Your task to perform on an android device: open the mobile data screen to see how much data has been used Image 0: 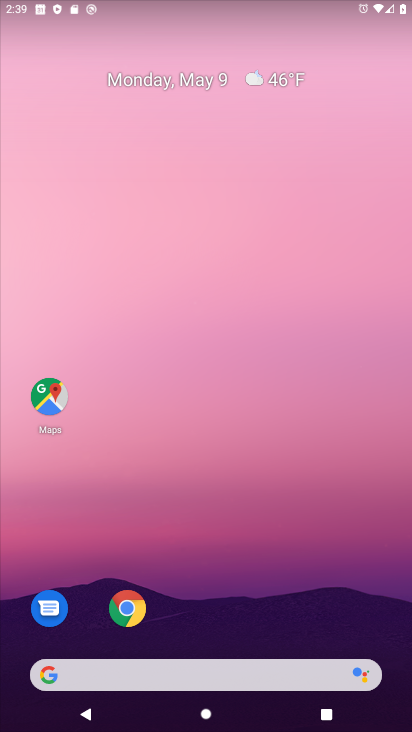
Step 0: drag from (236, 623) to (354, 191)
Your task to perform on an android device: open the mobile data screen to see how much data has been used Image 1: 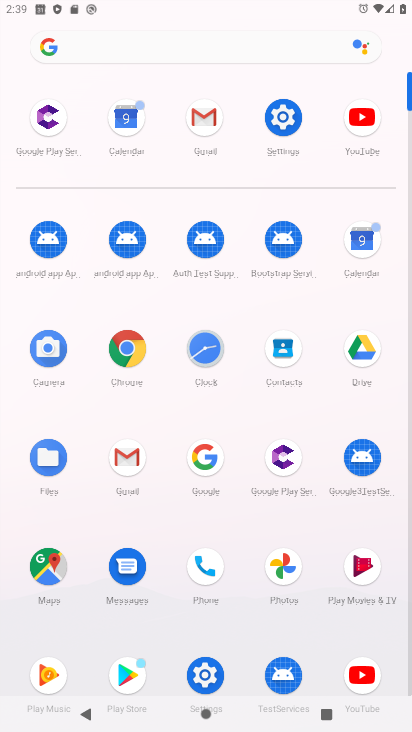
Step 1: click (275, 116)
Your task to perform on an android device: open the mobile data screen to see how much data has been used Image 2: 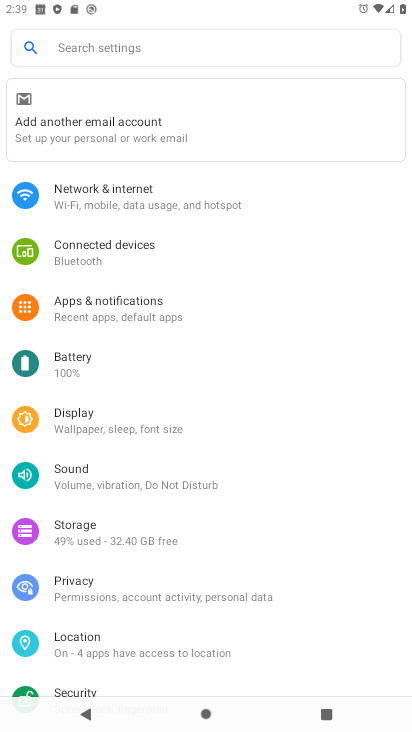
Step 2: click (124, 195)
Your task to perform on an android device: open the mobile data screen to see how much data has been used Image 3: 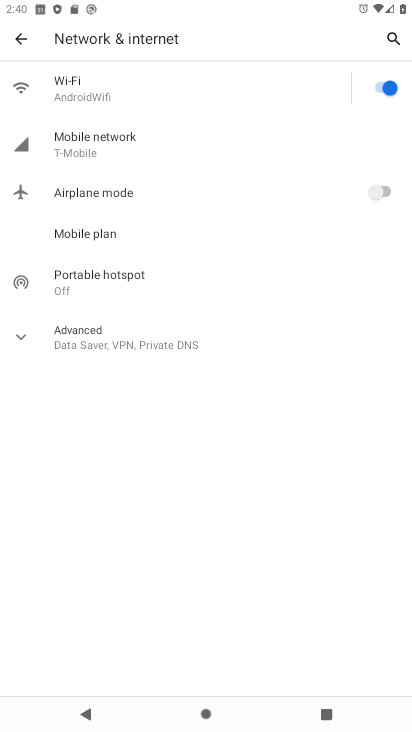
Step 3: click (19, 328)
Your task to perform on an android device: open the mobile data screen to see how much data has been used Image 4: 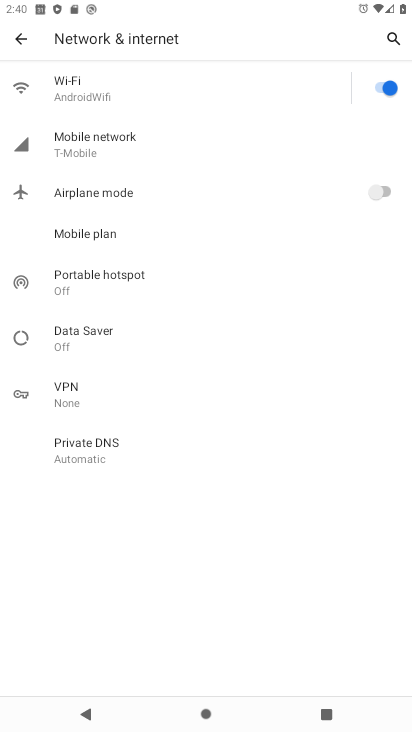
Step 4: click (125, 144)
Your task to perform on an android device: open the mobile data screen to see how much data has been used Image 5: 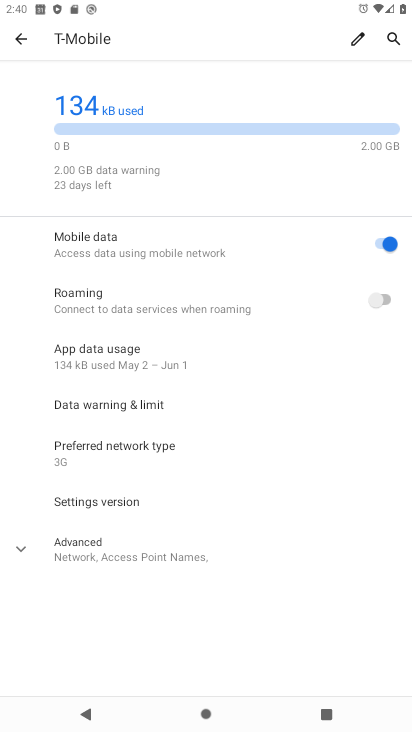
Step 5: task complete